Your task to perform on an android device: check android version Image 0: 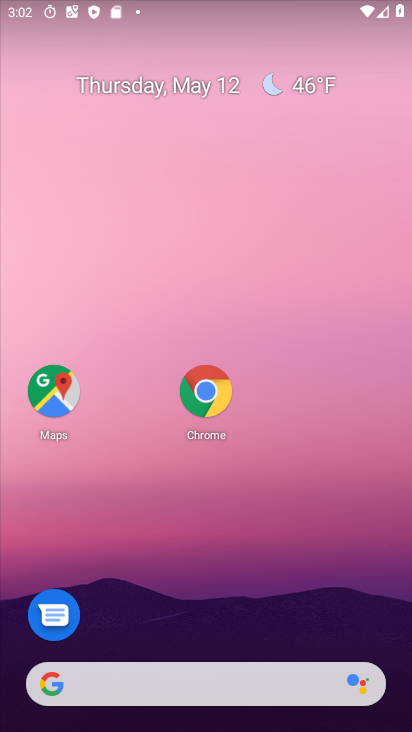
Step 0: drag from (197, 592) to (188, 64)
Your task to perform on an android device: check android version Image 1: 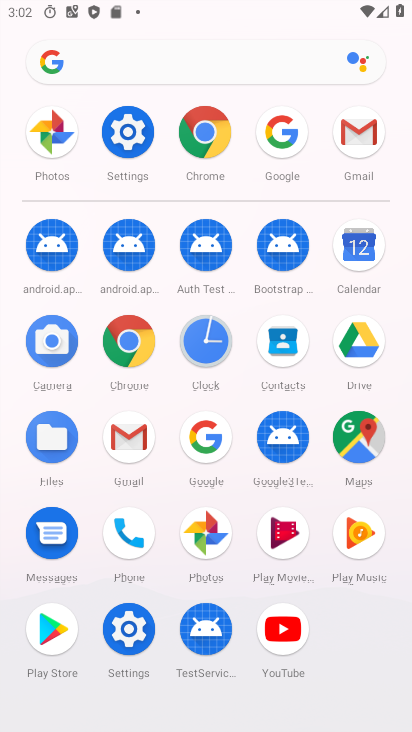
Step 1: click (126, 135)
Your task to perform on an android device: check android version Image 2: 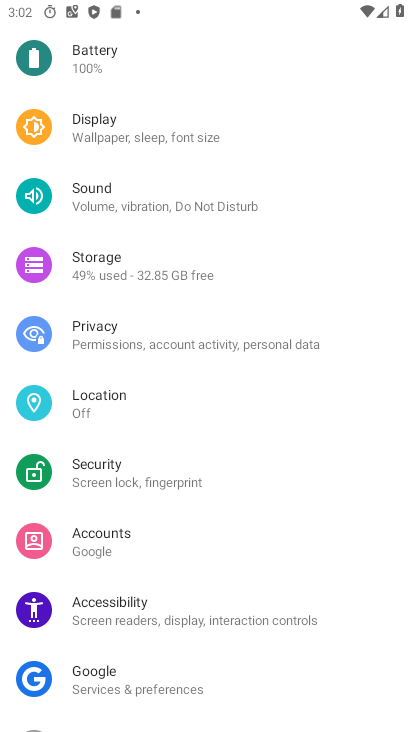
Step 2: drag from (137, 639) to (229, 17)
Your task to perform on an android device: check android version Image 3: 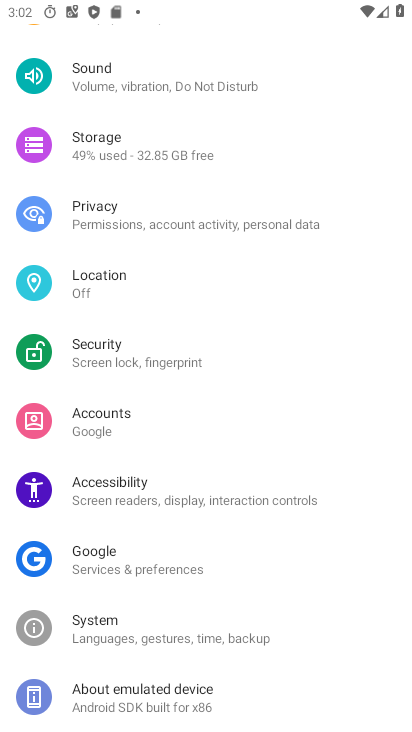
Step 3: click (107, 689)
Your task to perform on an android device: check android version Image 4: 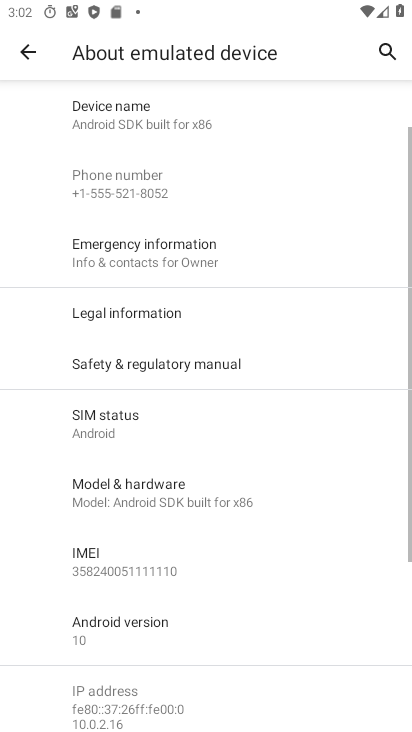
Step 4: drag from (198, 591) to (192, 106)
Your task to perform on an android device: check android version Image 5: 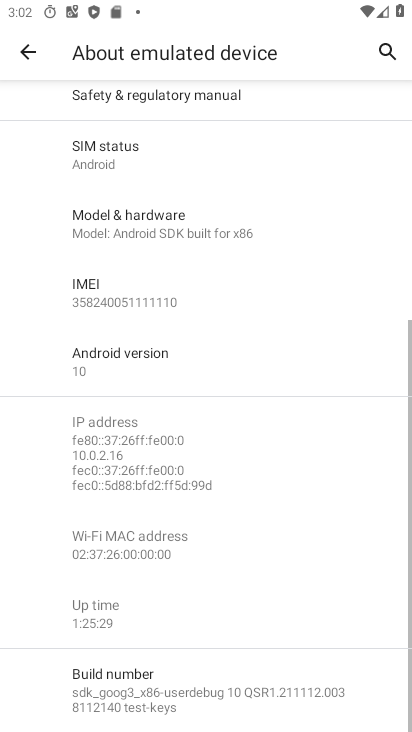
Step 5: click (148, 360)
Your task to perform on an android device: check android version Image 6: 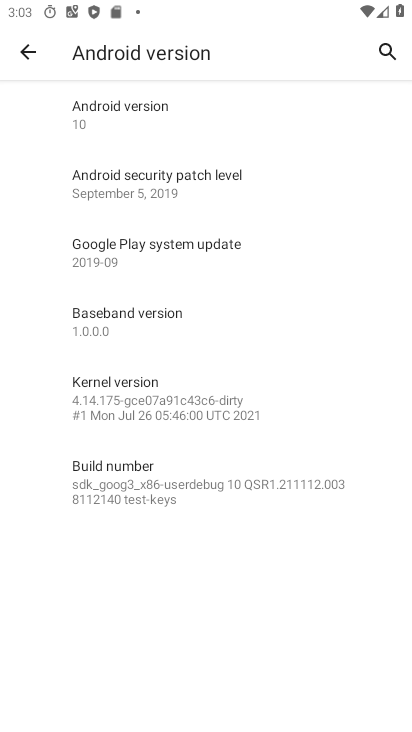
Step 6: task complete